Your task to perform on an android device: Open the calendar and show me this week's events? Image 0: 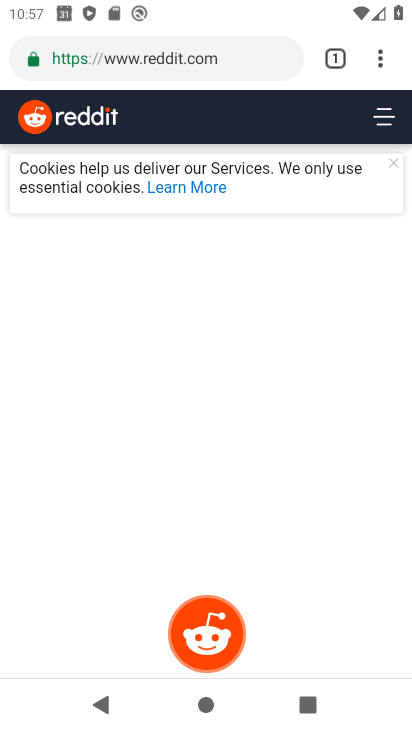
Step 0: press home button
Your task to perform on an android device: Open the calendar and show me this week's events? Image 1: 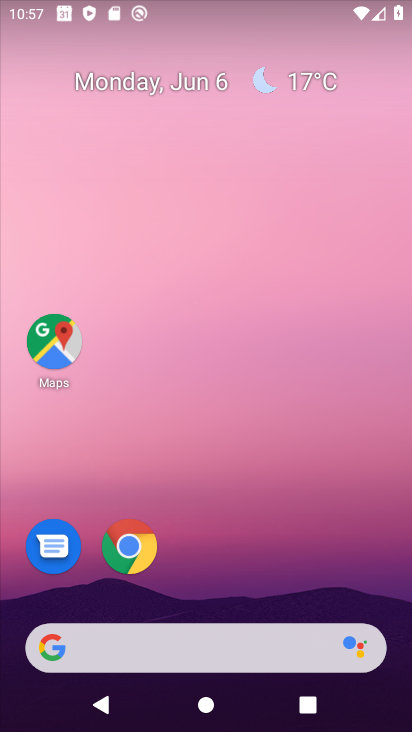
Step 1: drag from (305, 551) to (251, 36)
Your task to perform on an android device: Open the calendar and show me this week's events? Image 2: 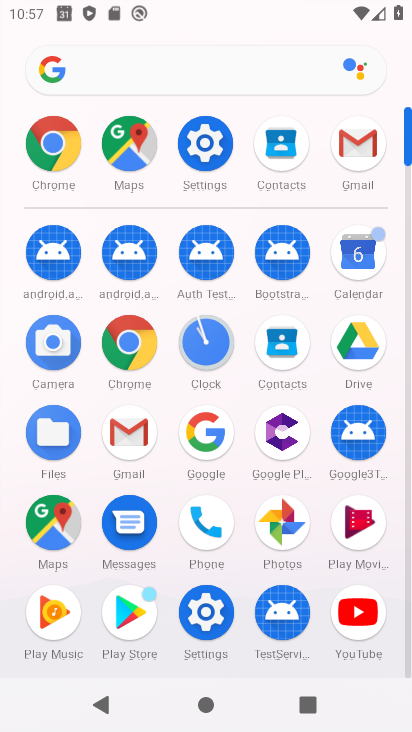
Step 2: click (360, 247)
Your task to perform on an android device: Open the calendar and show me this week's events? Image 3: 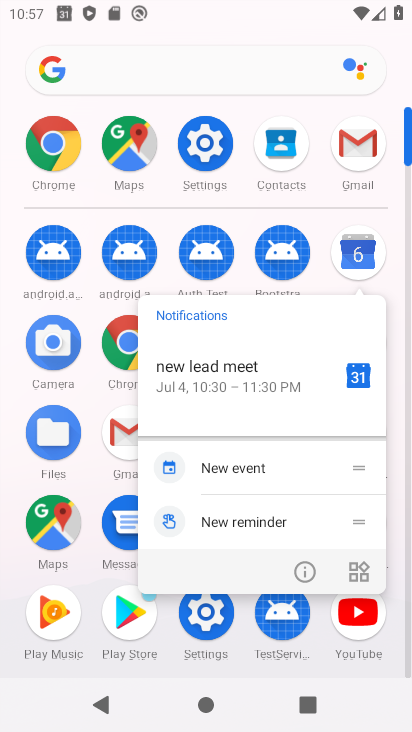
Step 3: click (353, 252)
Your task to perform on an android device: Open the calendar and show me this week's events? Image 4: 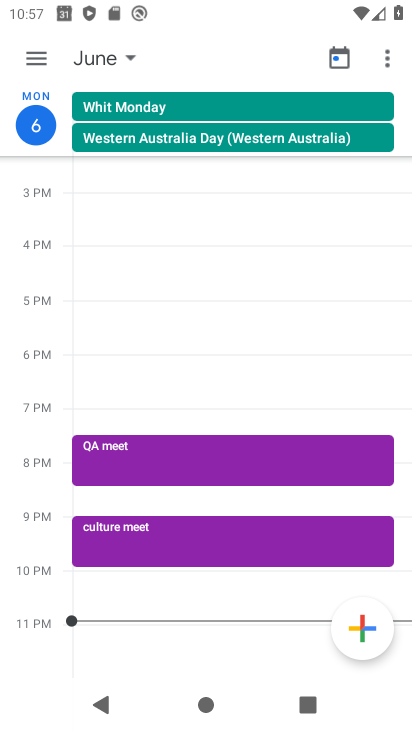
Step 4: click (30, 49)
Your task to perform on an android device: Open the calendar and show me this week's events? Image 5: 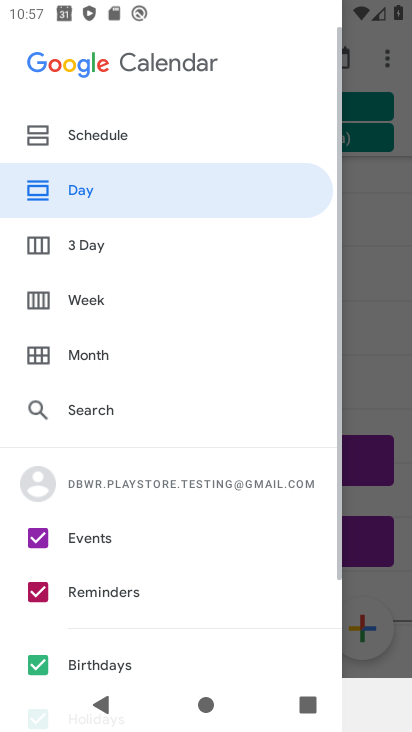
Step 5: click (83, 295)
Your task to perform on an android device: Open the calendar and show me this week's events? Image 6: 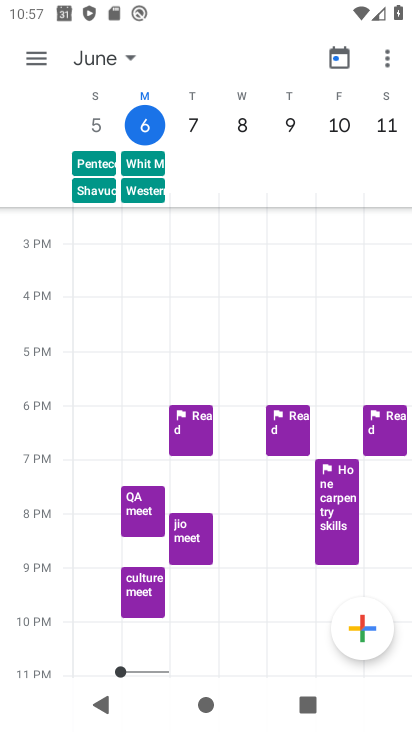
Step 6: task complete